Your task to perform on an android device: Go to eBay Image 0: 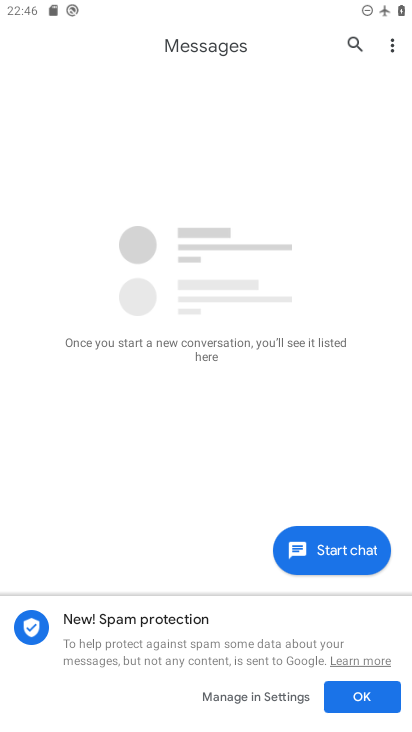
Step 0: press home button
Your task to perform on an android device: Go to eBay Image 1: 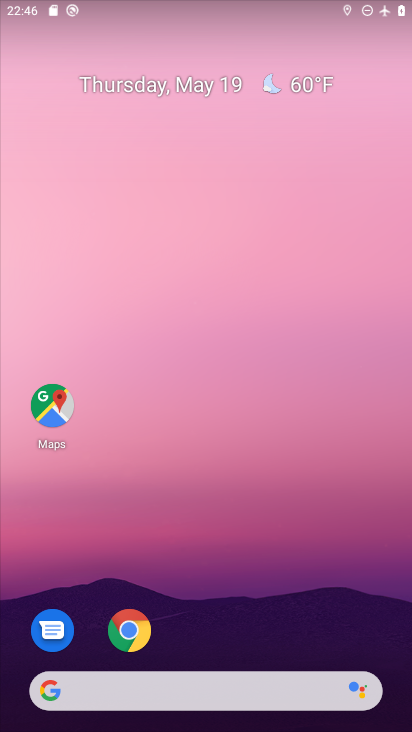
Step 1: click (132, 636)
Your task to perform on an android device: Go to eBay Image 2: 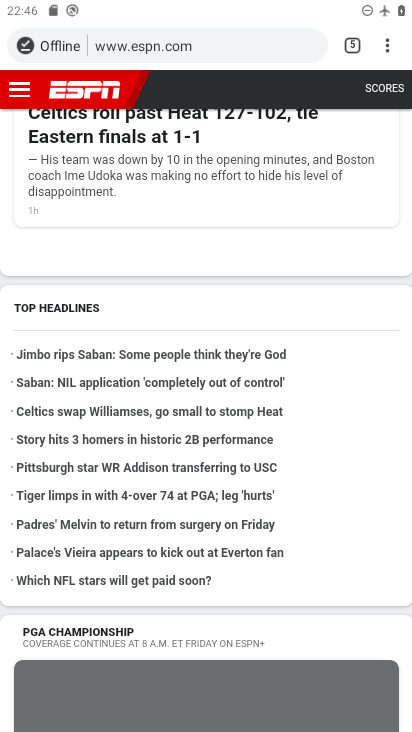
Step 2: click (386, 41)
Your task to perform on an android device: Go to eBay Image 3: 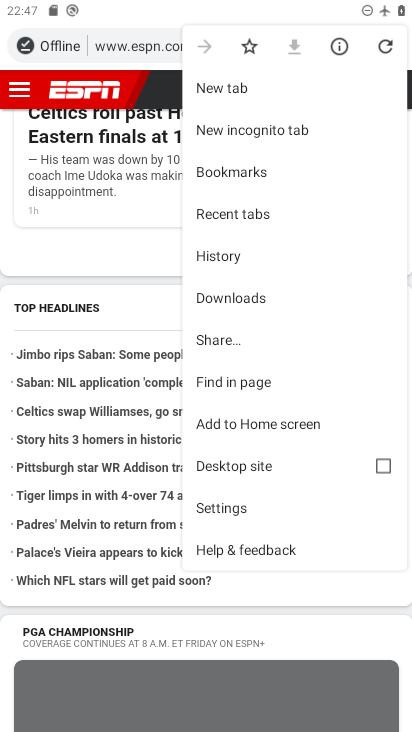
Step 3: click (232, 85)
Your task to perform on an android device: Go to eBay Image 4: 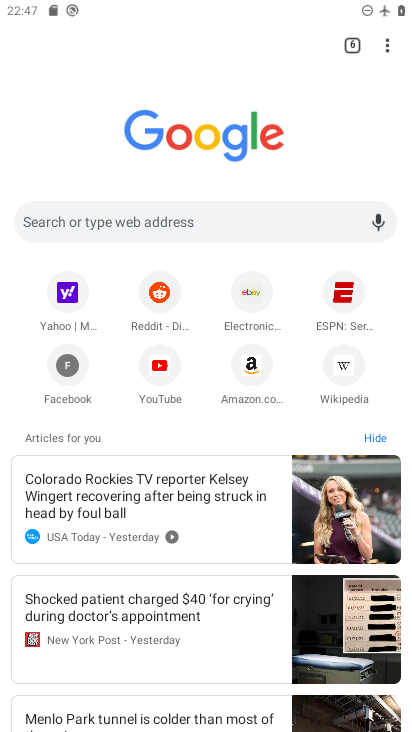
Step 4: click (253, 291)
Your task to perform on an android device: Go to eBay Image 5: 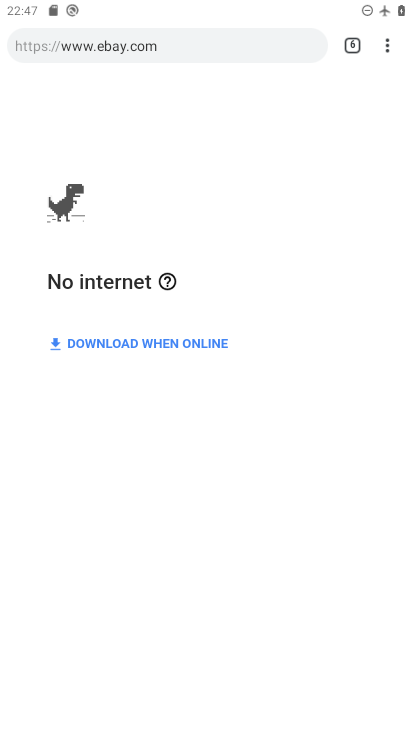
Step 5: task complete